Your task to perform on an android device: toggle airplane mode Image 0: 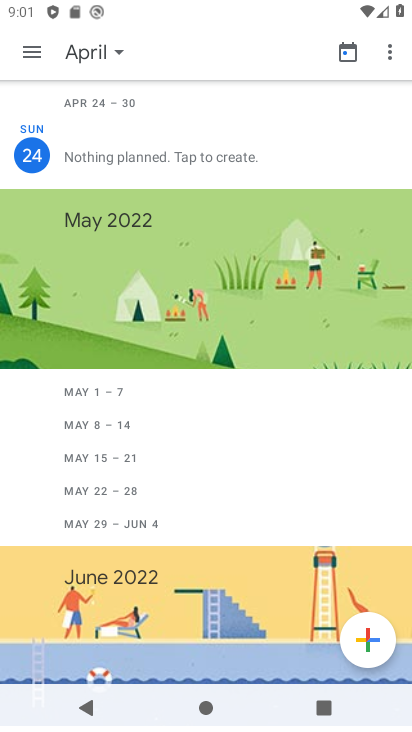
Step 0: press home button
Your task to perform on an android device: toggle airplane mode Image 1: 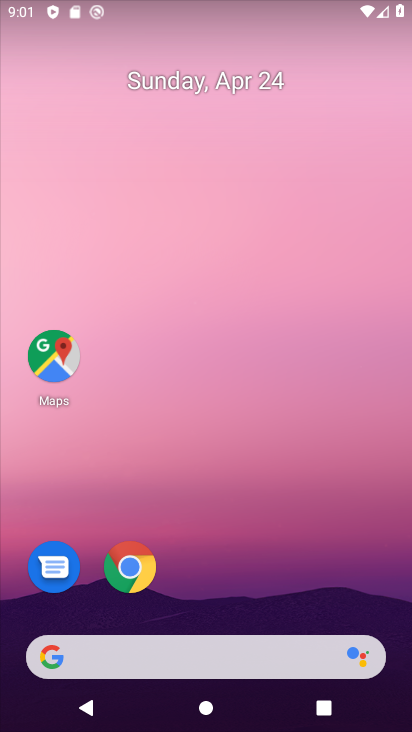
Step 1: drag from (213, 396) to (406, 171)
Your task to perform on an android device: toggle airplane mode Image 2: 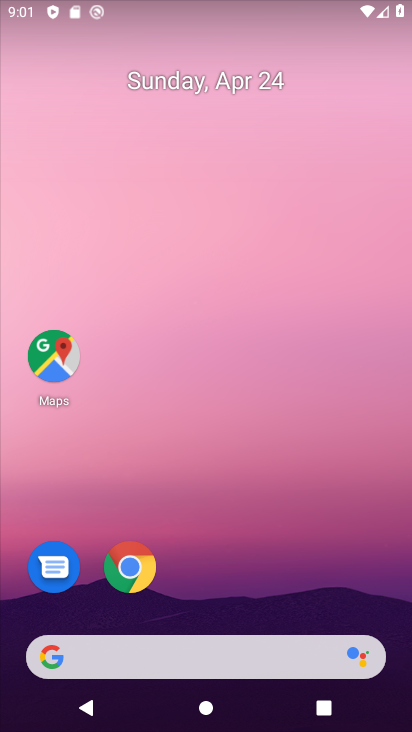
Step 2: drag from (244, 611) to (243, 2)
Your task to perform on an android device: toggle airplane mode Image 3: 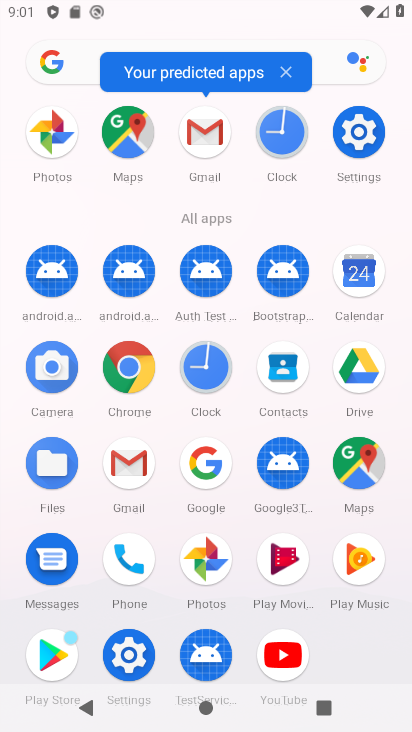
Step 3: click (364, 150)
Your task to perform on an android device: toggle airplane mode Image 4: 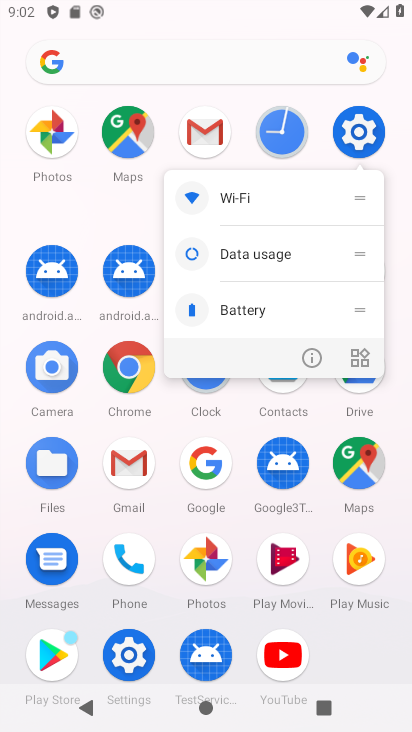
Step 4: click (357, 142)
Your task to perform on an android device: toggle airplane mode Image 5: 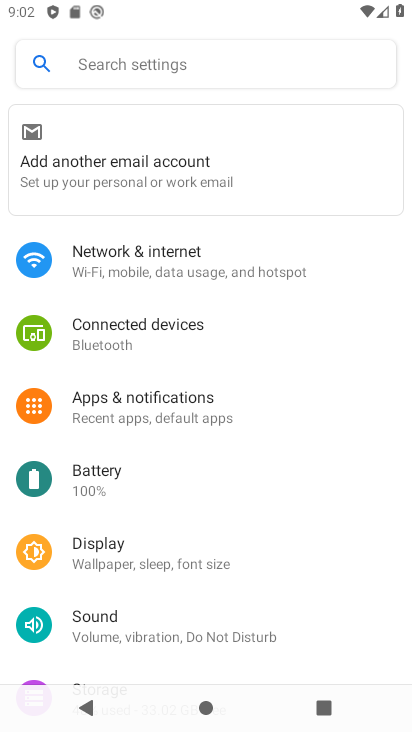
Step 5: click (183, 263)
Your task to perform on an android device: toggle airplane mode Image 6: 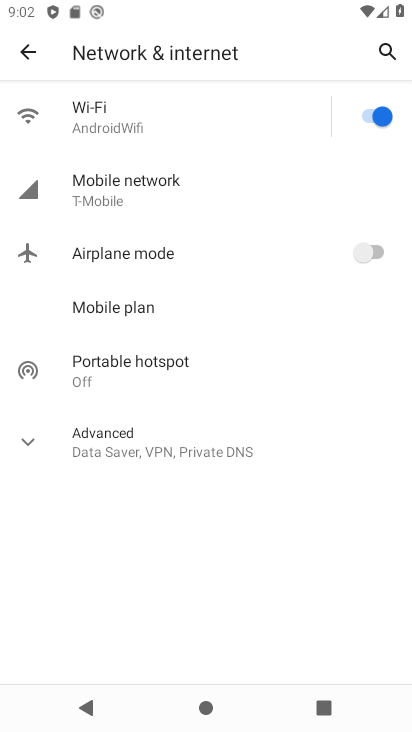
Step 6: click (379, 257)
Your task to perform on an android device: toggle airplane mode Image 7: 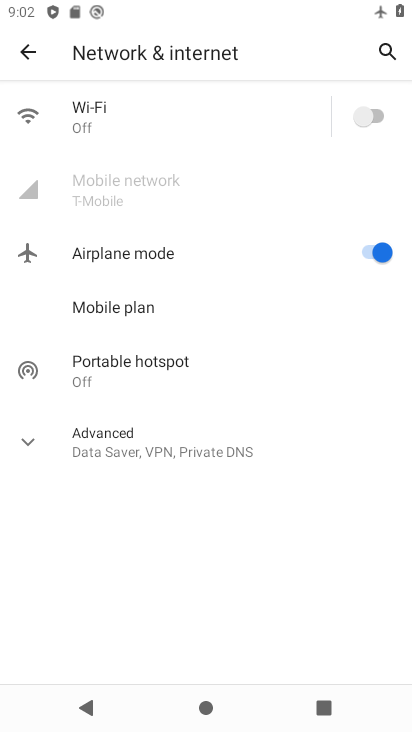
Step 7: task complete